Your task to perform on an android device: Go to CNN.com Image 0: 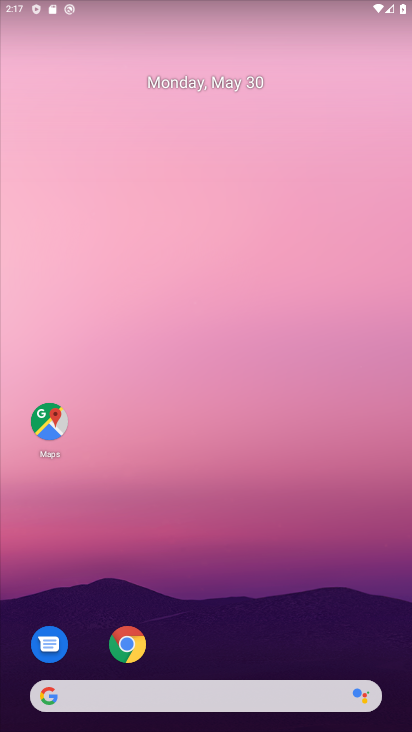
Step 0: click (254, 706)
Your task to perform on an android device: Go to CNN.com Image 1: 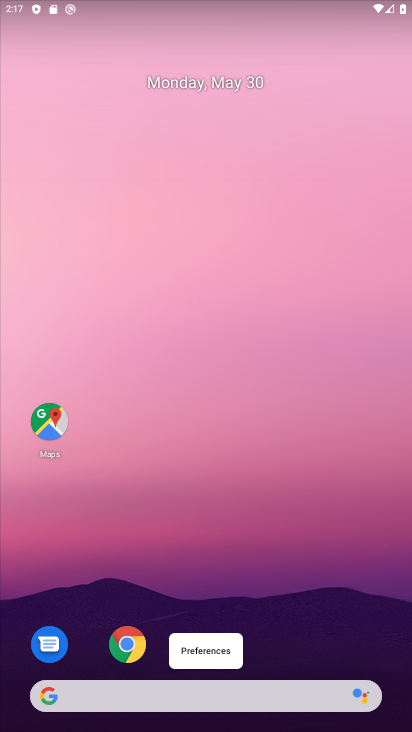
Step 1: click (255, 703)
Your task to perform on an android device: Go to CNN.com Image 2: 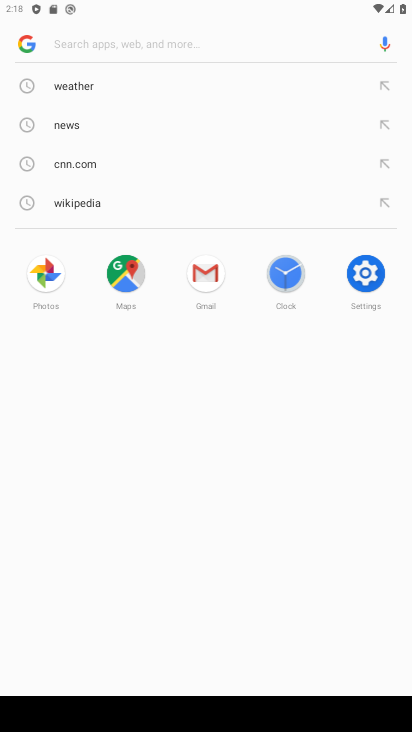
Step 2: type "CNN.com"
Your task to perform on an android device: Go to CNN.com Image 3: 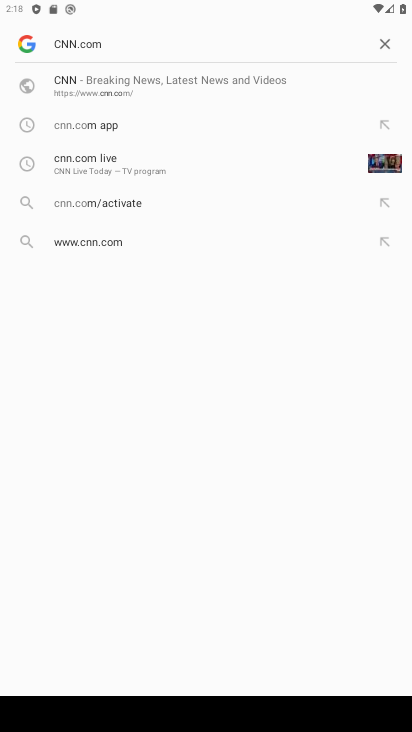
Step 3: click (205, 84)
Your task to perform on an android device: Go to CNN.com Image 4: 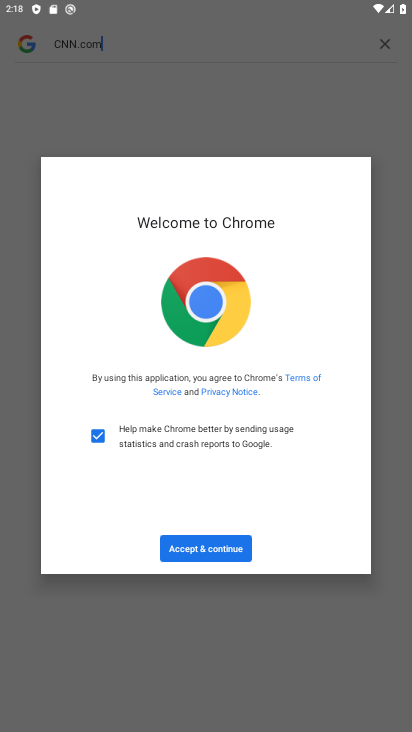
Step 4: click (204, 539)
Your task to perform on an android device: Go to CNN.com Image 5: 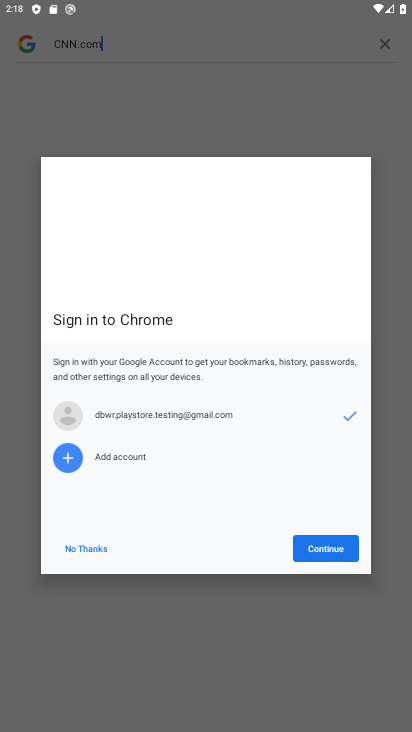
Step 5: click (346, 543)
Your task to perform on an android device: Go to CNN.com Image 6: 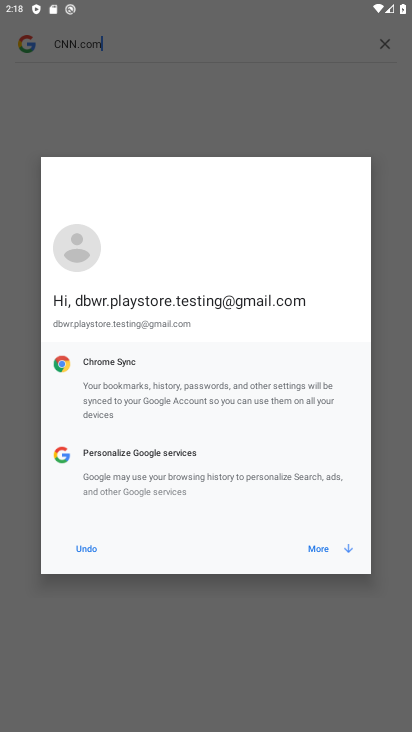
Step 6: click (347, 528)
Your task to perform on an android device: Go to CNN.com Image 7: 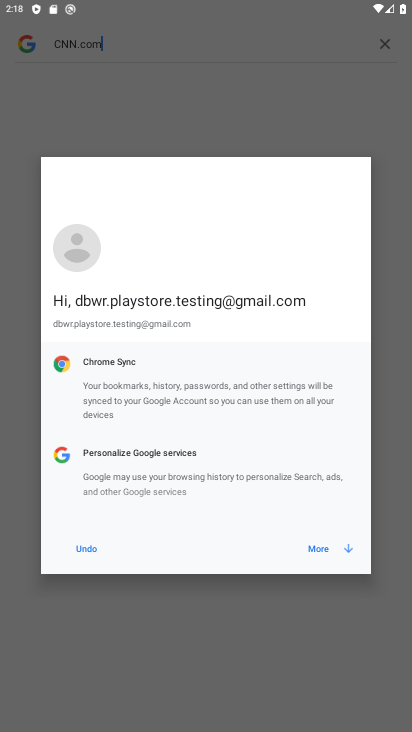
Step 7: click (315, 560)
Your task to perform on an android device: Go to CNN.com Image 8: 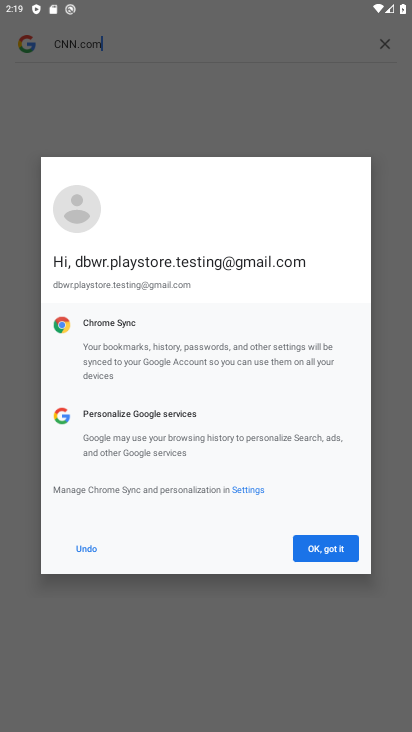
Step 8: click (338, 568)
Your task to perform on an android device: Go to CNN.com Image 9: 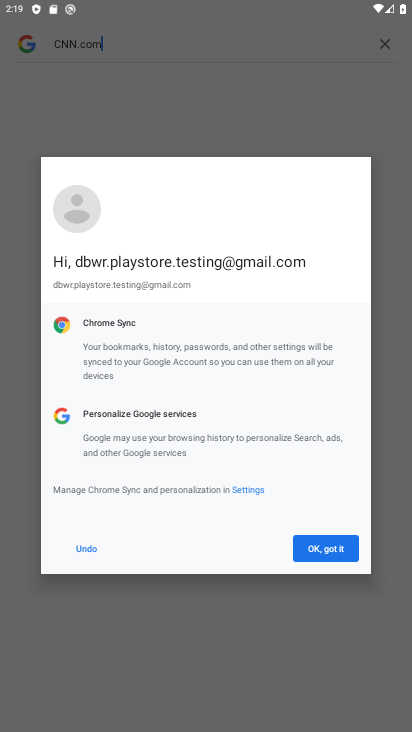
Step 9: click (343, 548)
Your task to perform on an android device: Go to CNN.com Image 10: 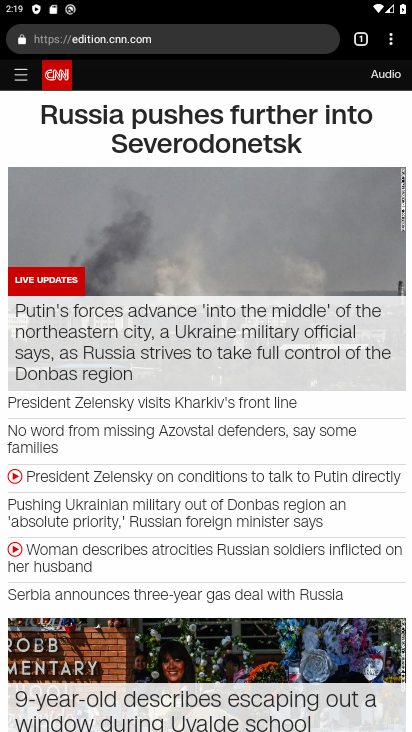
Step 10: task complete